Your task to perform on an android device: change alarm snooze length Image 0: 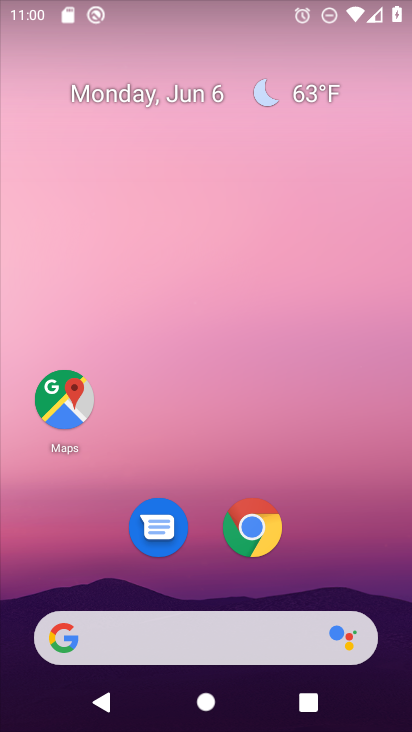
Step 0: drag from (365, 558) to (365, 183)
Your task to perform on an android device: change alarm snooze length Image 1: 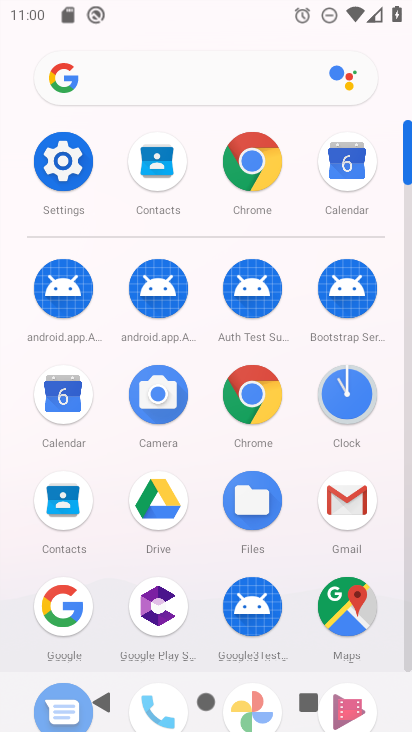
Step 1: click (352, 392)
Your task to perform on an android device: change alarm snooze length Image 2: 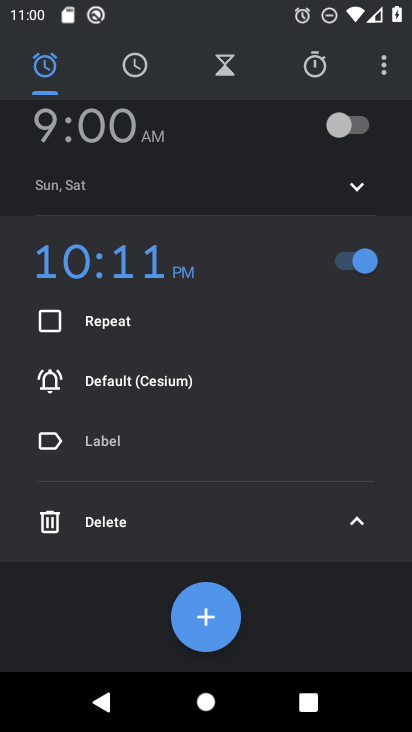
Step 2: click (382, 78)
Your task to perform on an android device: change alarm snooze length Image 3: 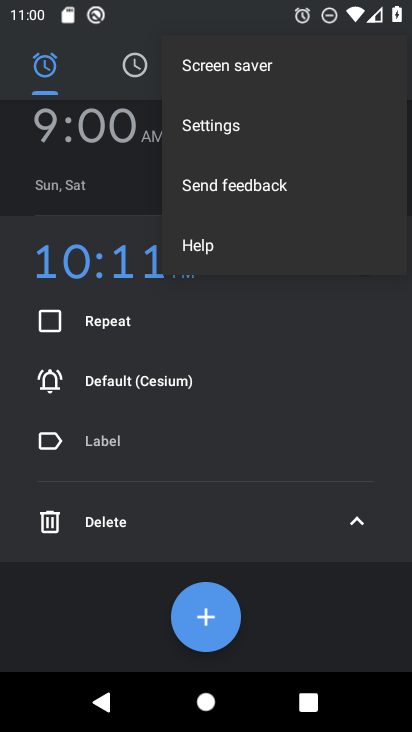
Step 3: click (245, 145)
Your task to perform on an android device: change alarm snooze length Image 4: 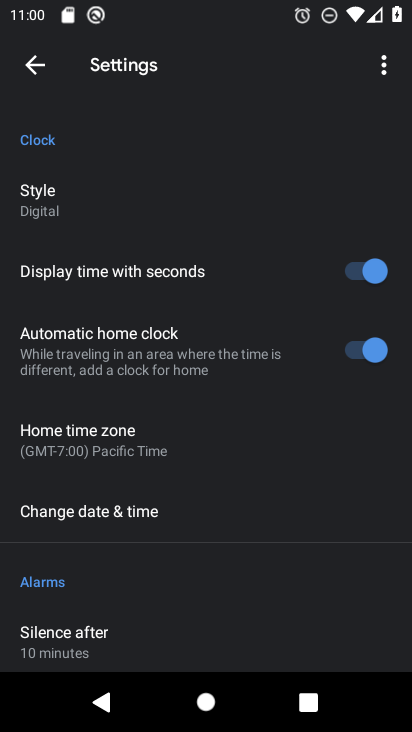
Step 4: drag from (299, 425) to (303, 303)
Your task to perform on an android device: change alarm snooze length Image 5: 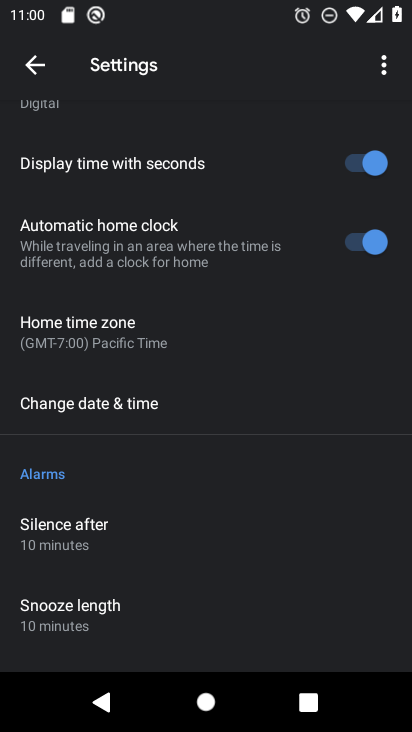
Step 5: drag from (318, 442) to (304, 305)
Your task to perform on an android device: change alarm snooze length Image 6: 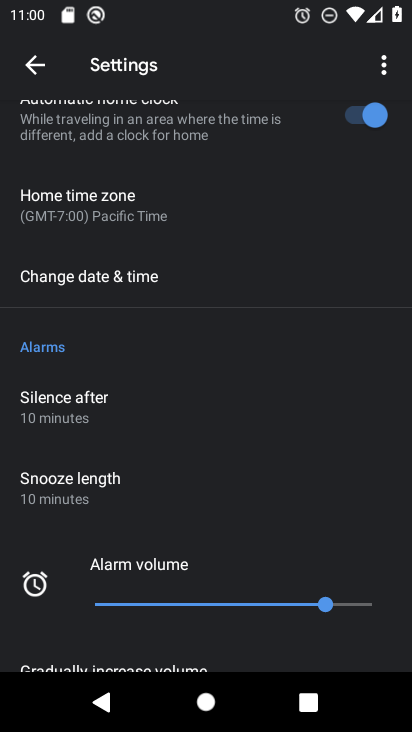
Step 6: drag from (285, 445) to (296, 398)
Your task to perform on an android device: change alarm snooze length Image 7: 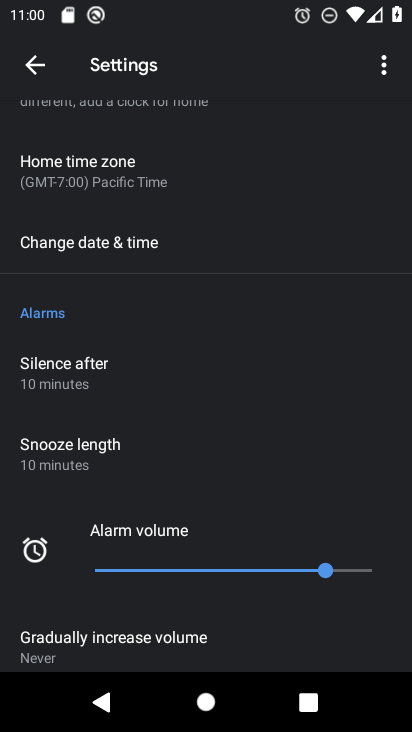
Step 7: click (139, 450)
Your task to perform on an android device: change alarm snooze length Image 8: 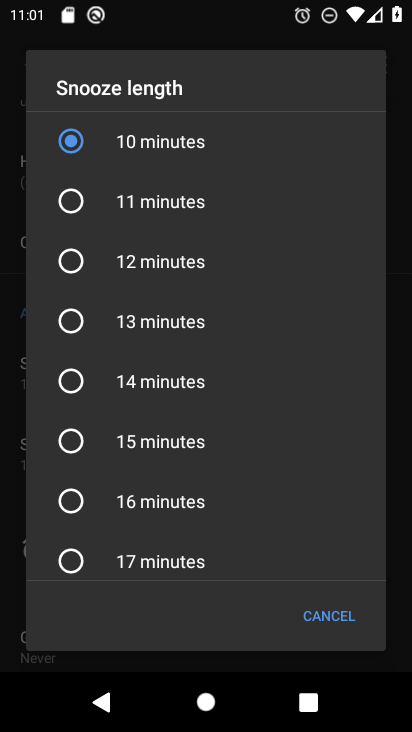
Step 8: click (205, 463)
Your task to perform on an android device: change alarm snooze length Image 9: 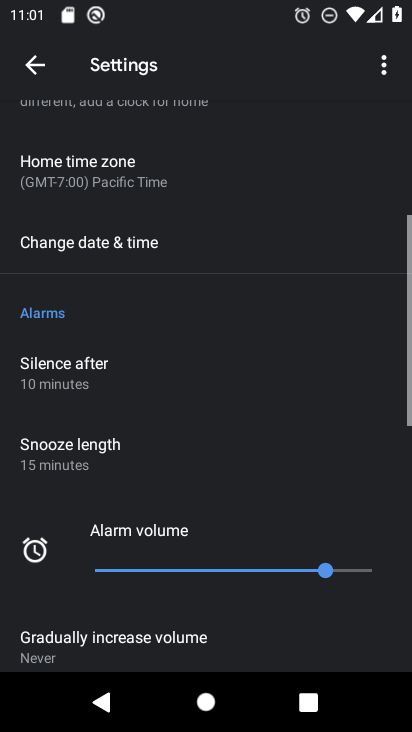
Step 9: click (205, 463)
Your task to perform on an android device: change alarm snooze length Image 10: 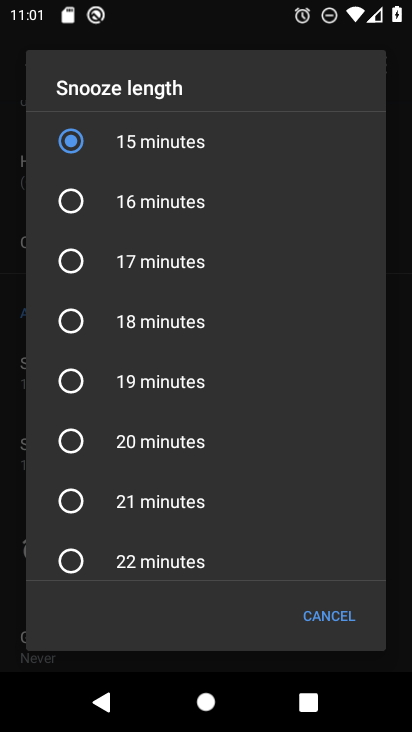
Step 10: click (200, 454)
Your task to perform on an android device: change alarm snooze length Image 11: 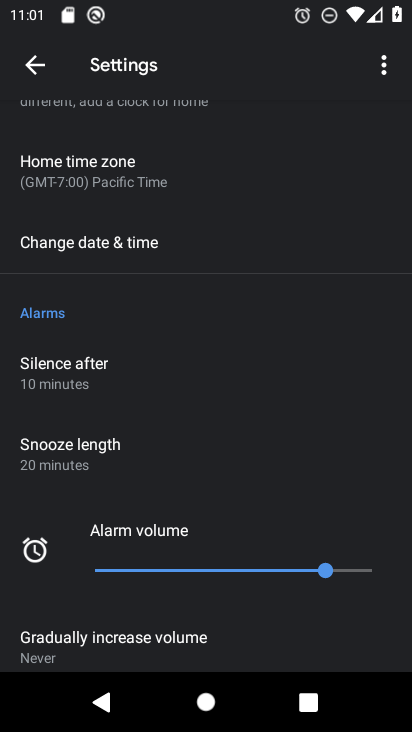
Step 11: task complete